Your task to perform on an android device: What's the weather going to be tomorrow? Image 0: 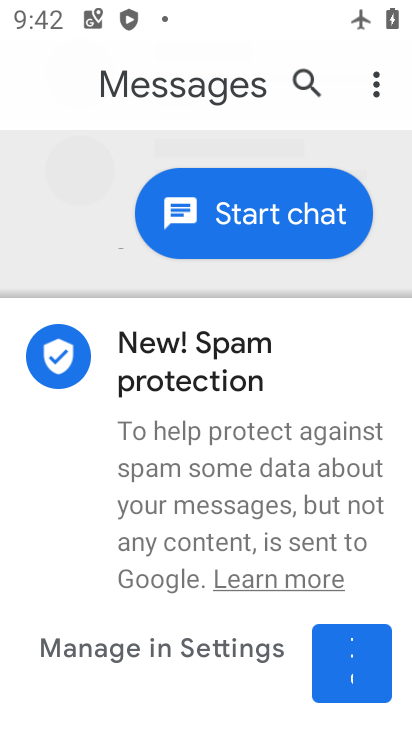
Step 0: press home button
Your task to perform on an android device: What's the weather going to be tomorrow? Image 1: 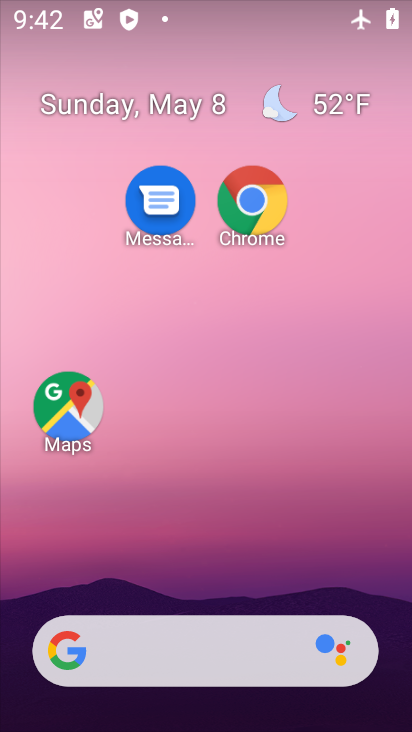
Step 1: drag from (208, 619) to (248, 3)
Your task to perform on an android device: What's the weather going to be tomorrow? Image 2: 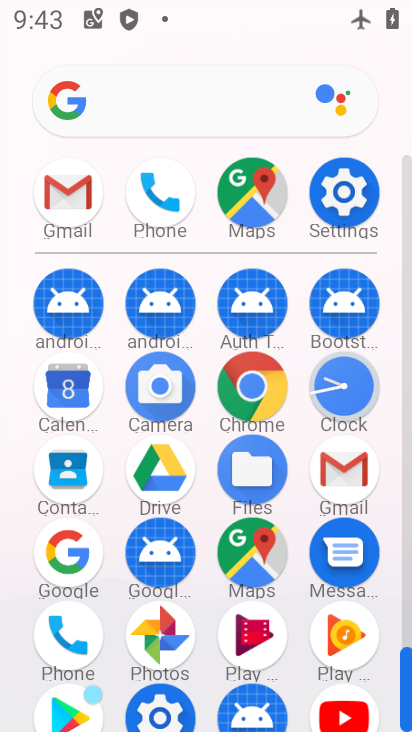
Step 2: click (75, 567)
Your task to perform on an android device: What's the weather going to be tomorrow? Image 3: 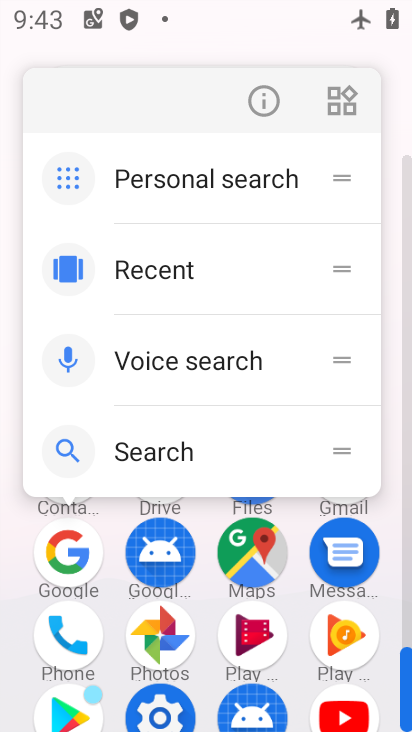
Step 3: click (73, 581)
Your task to perform on an android device: What's the weather going to be tomorrow? Image 4: 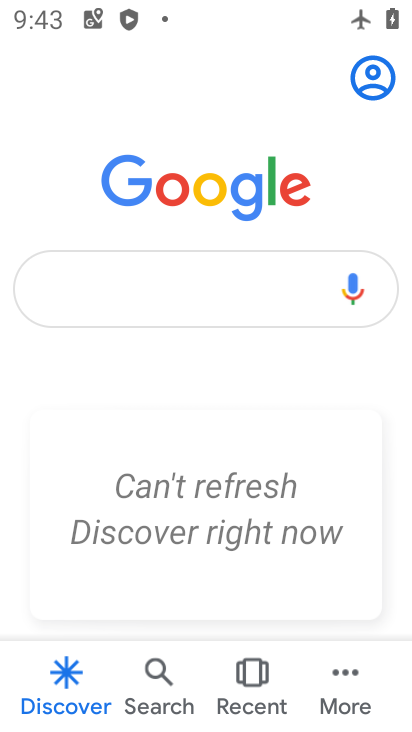
Step 4: click (39, 294)
Your task to perform on an android device: What's the weather going to be tomorrow? Image 5: 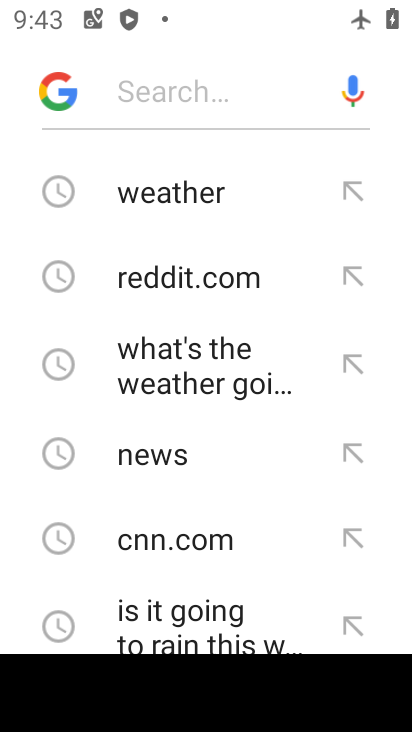
Step 5: click (123, 207)
Your task to perform on an android device: What's the weather going to be tomorrow? Image 6: 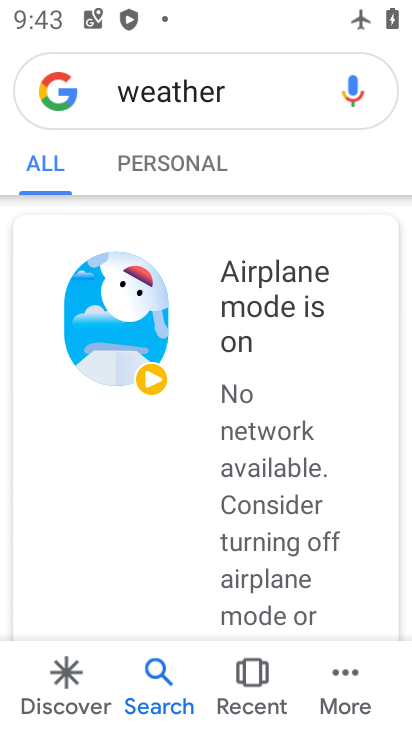
Step 6: task complete